Your task to perform on an android device: toggle translation in the chrome app Image 0: 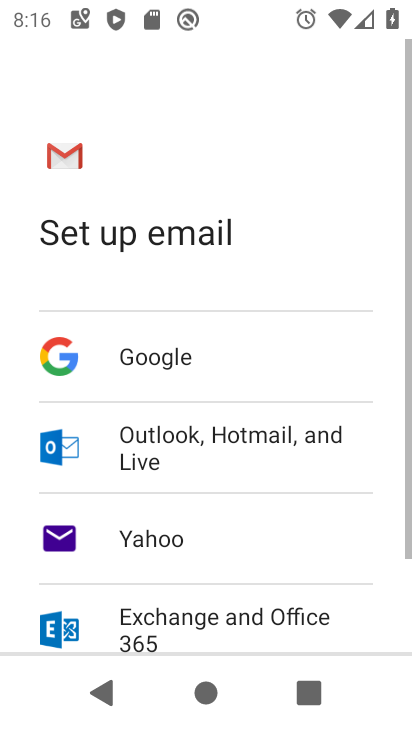
Step 0: press home button
Your task to perform on an android device: toggle translation in the chrome app Image 1: 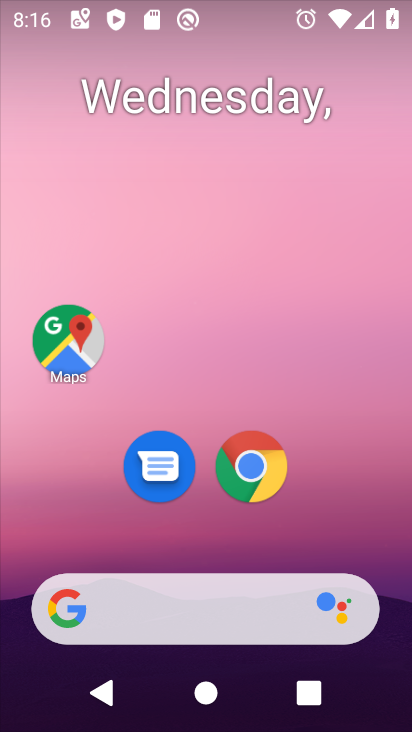
Step 1: click (231, 475)
Your task to perform on an android device: toggle translation in the chrome app Image 2: 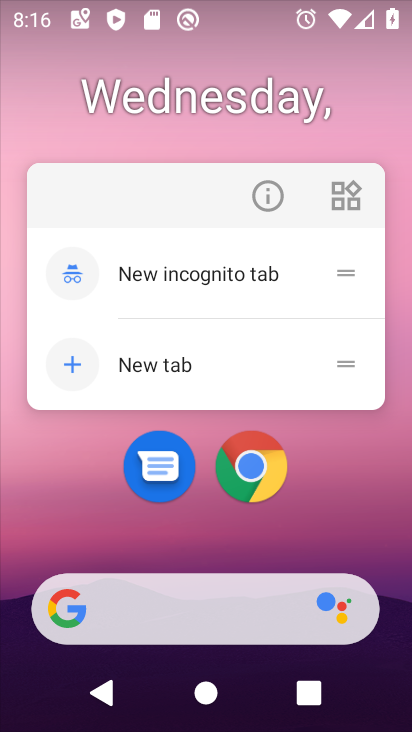
Step 2: click (230, 471)
Your task to perform on an android device: toggle translation in the chrome app Image 3: 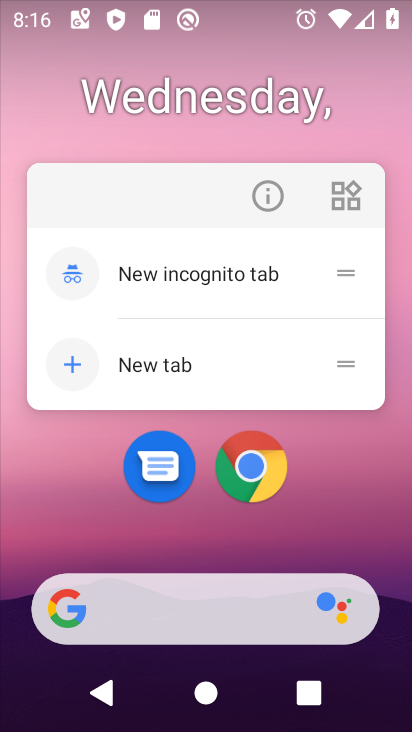
Step 3: click (236, 469)
Your task to perform on an android device: toggle translation in the chrome app Image 4: 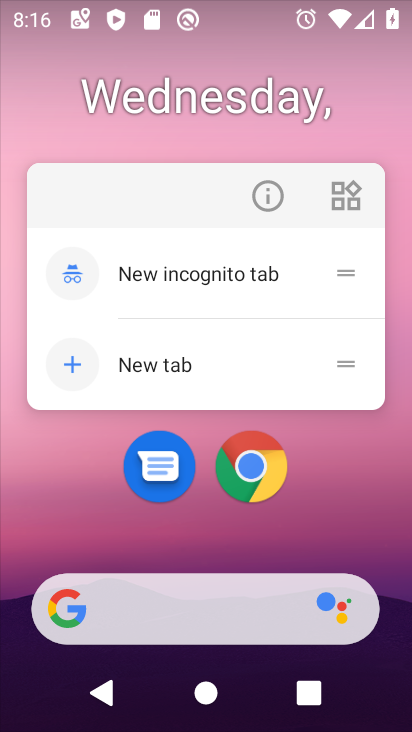
Step 4: click (251, 475)
Your task to perform on an android device: toggle translation in the chrome app Image 5: 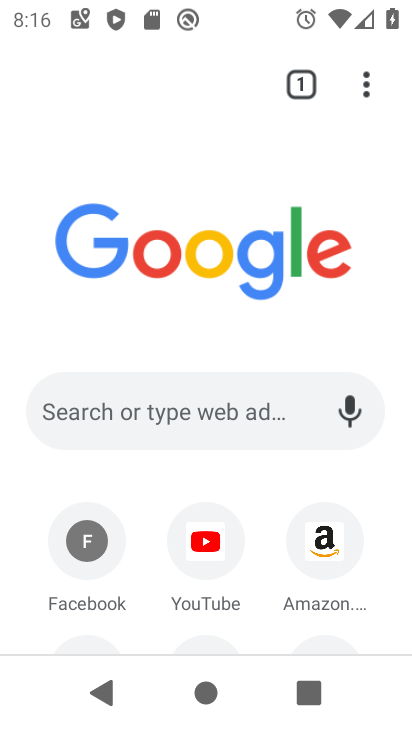
Step 5: click (357, 98)
Your task to perform on an android device: toggle translation in the chrome app Image 6: 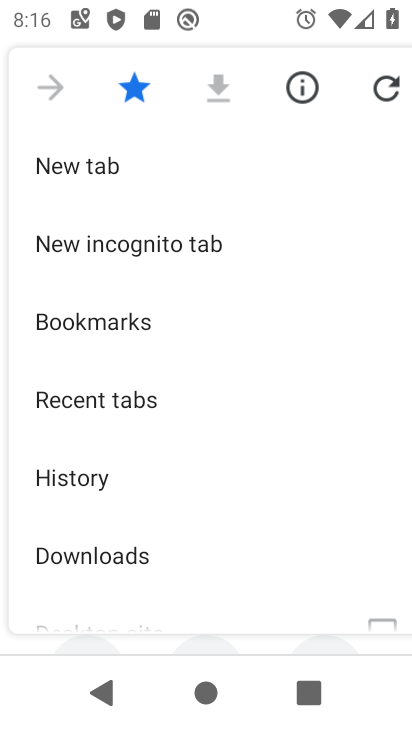
Step 6: drag from (101, 532) to (106, 335)
Your task to perform on an android device: toggle translation in the chrome app Image 7: 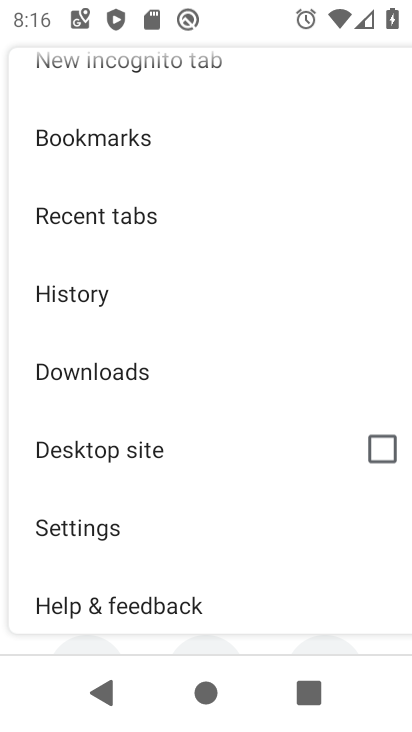
Step 7: click (125, 525)
Your task to perform on an android device: toggle translation in the chrome app Image 8: 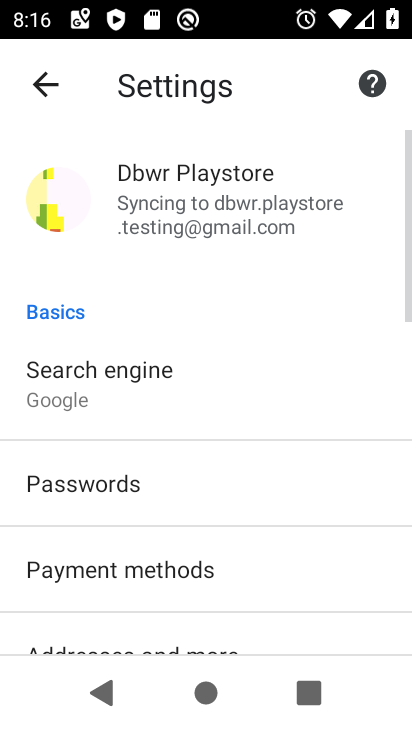
Step 8: drag from (131, 519) to (131, 428)
Your task to perform on an android device: toggle translation in the chrome app Image 9: 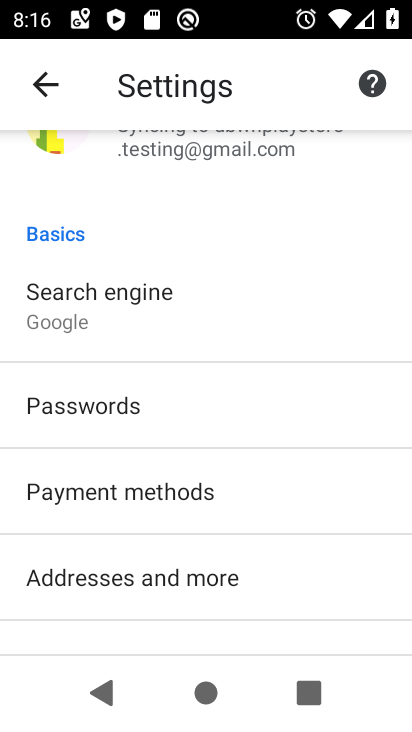
Step 9: drag from (171, 598) to (171, 498)
Your task to perform on an android device: toggle translation in the chrome app Image 10: 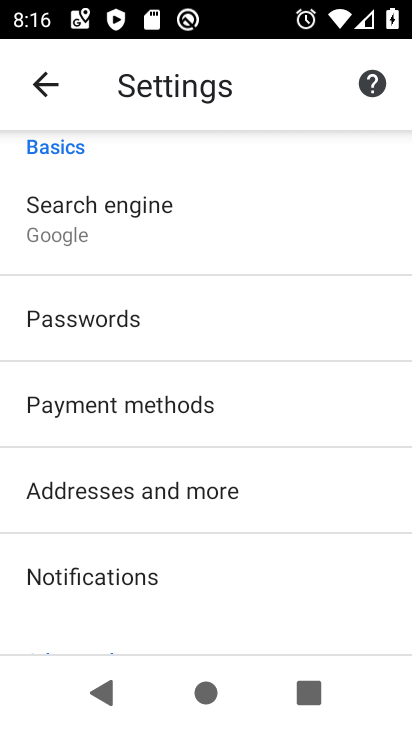
Step 10: drag from (159, 588) to (150, 506)
Your task to perform on an android device: toggle translation in the chrome app Image 11: 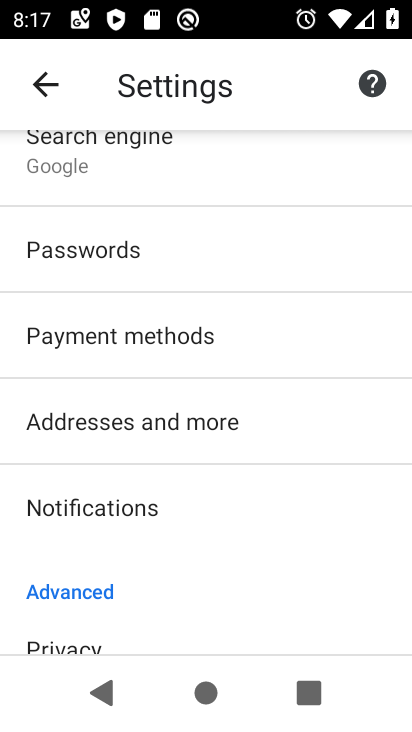
Step 11: drag from (118, 606) to (125, 536)
Your task to perform on an android device: toggle translation in the chrome app Image 12: 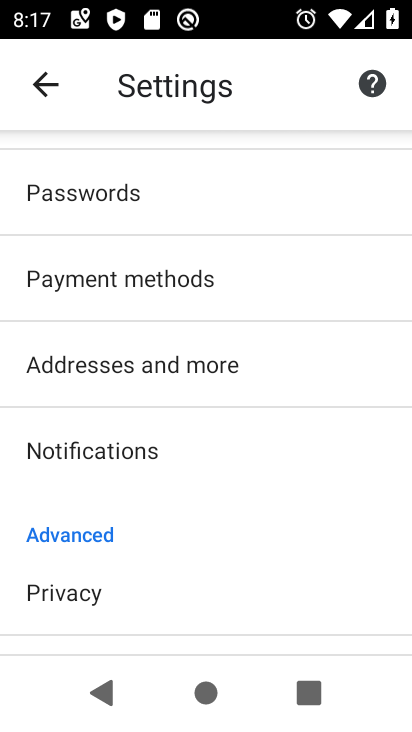
Step 12: drag from (111, 595) to (114, 522)
Your task to perform on an android device: toggle translation in the chrome app Image 13: 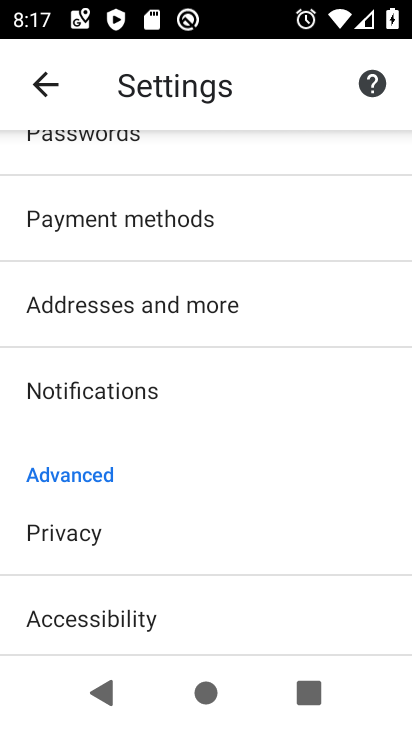
Step 13: drag from (118, 589) to (145, 510)
Your task to perform on an android device: toggle translation in the chrome app Image 14: 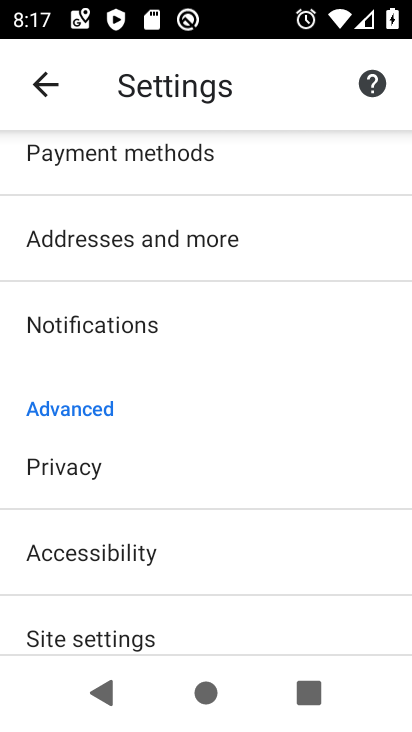
Step 14: drag from (167, 572) to (187, 489)
Your task to perform on an android device: toggle translation in the chrome app Image 15: 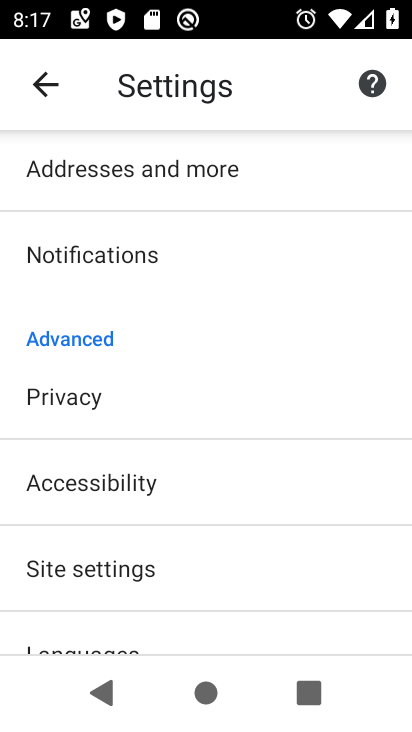
Step 15: drag from (183, 549) to (194, 449)
Your task to perform on an android device: toggle translation in the chrome app Image 16: 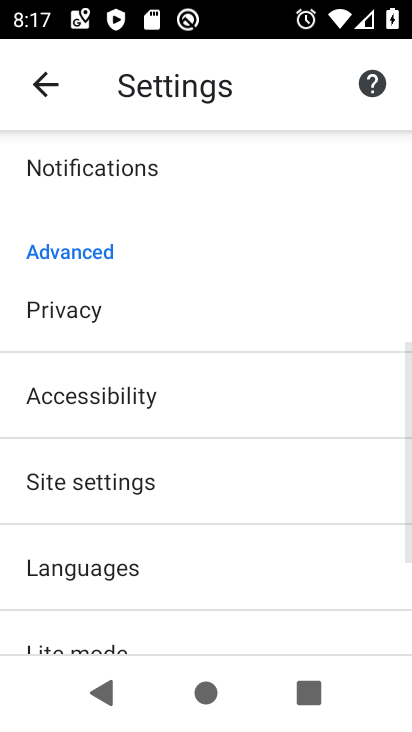
Step 16: click (157, 556)
Your task to perform on an android device: toggle translation in the chrome app Image 17: 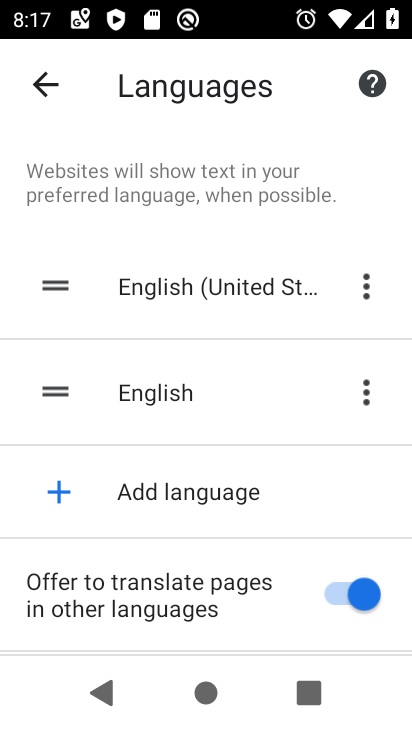
Step 17: click (297, 593)
Your task to perform on an android device: toggle translation in the chrome app Image 18: 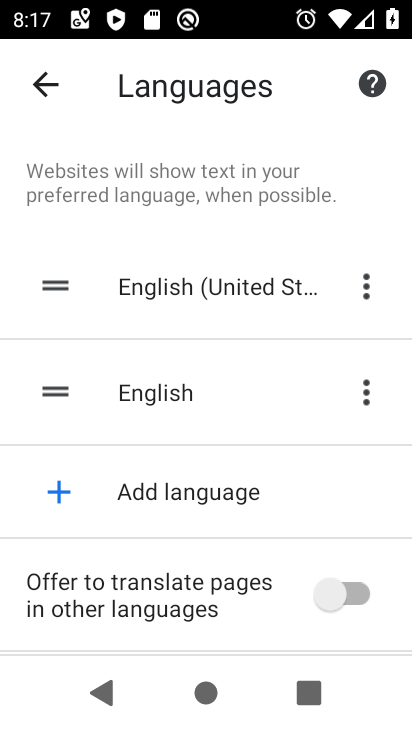
Step 18: task complete